Your task to perform on an android device: Open the map Image 0: 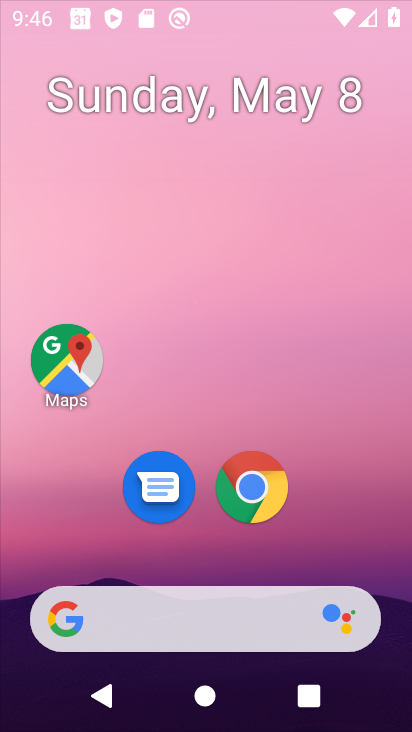
Step 0: drag from (341, 514) to (309, 74)
Your task to perform on an android device: Open the map Image 1: 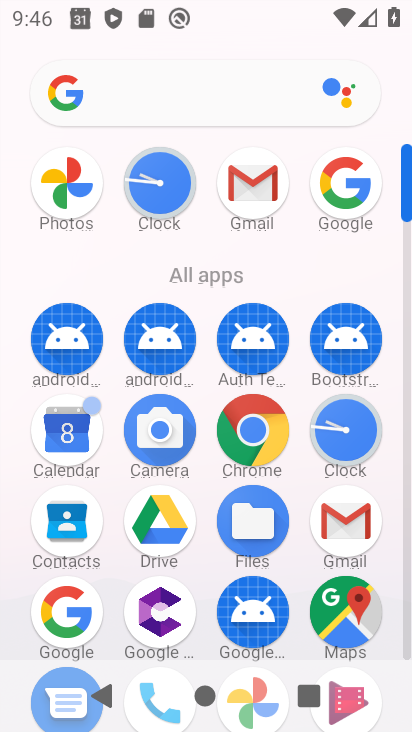
Step 1: click (353, 619)
Your task to perform on an android device: Open the map Image 2: 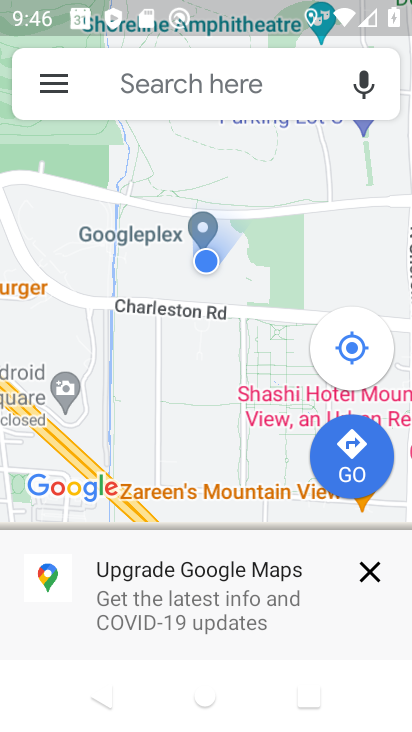
Step 2: click (358, 572)
Your task to perform on an android device: Open the map Image 3: 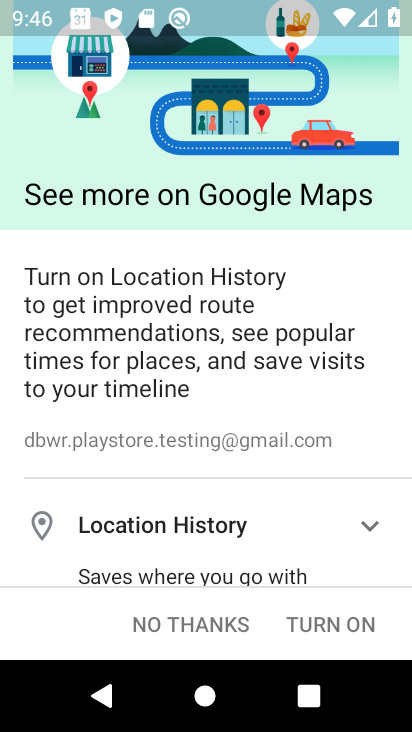
Step 3: click (204, 611)
Your task to perform on an android device: Open the map Image 4: 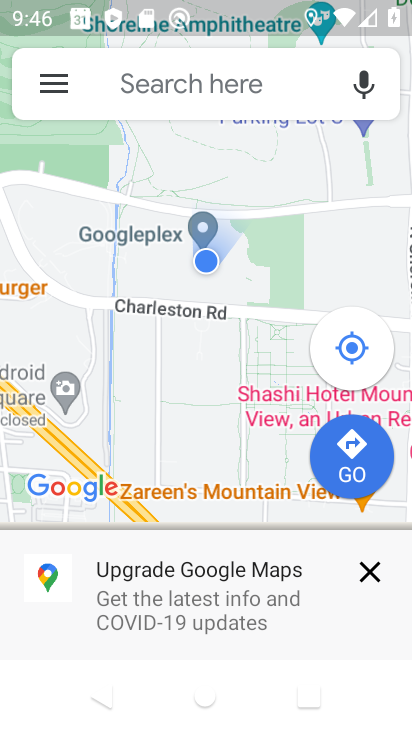
Step 4: task complete